Your task to perform on an android device: toggle notification dots Image 0: 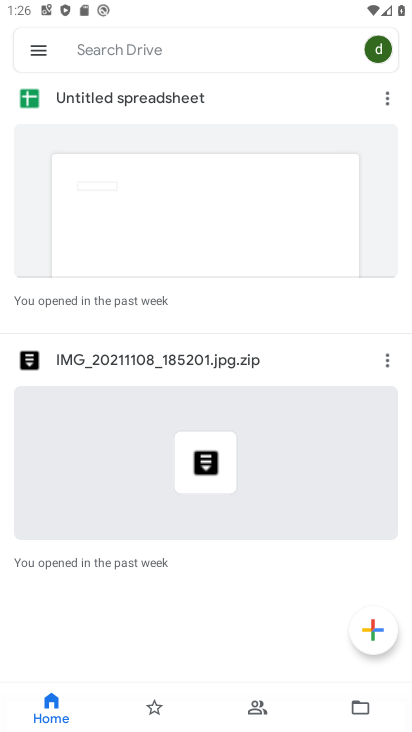
Step 0: press home button
Your task to perform on an android device: toggle notification dots Image 1: 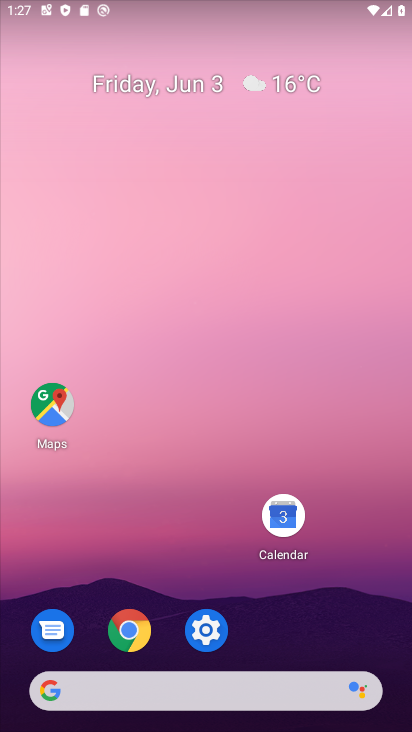
Step 1: drag from (242, 716) to (284, 234)
Your task to perform on an android device: toggle notification dots Image 2: 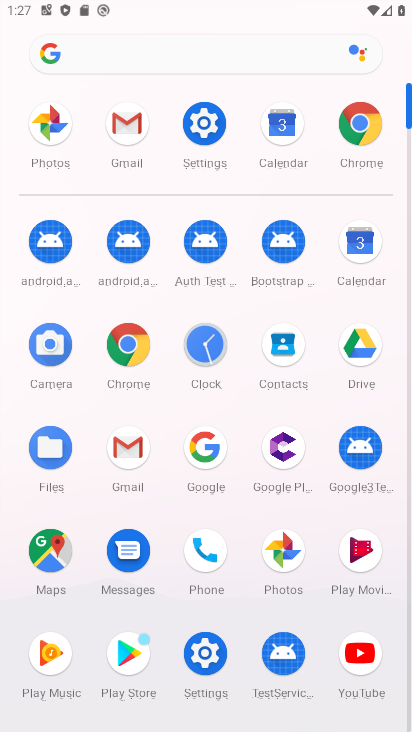
Step 2: click (211, 656)
Your task to perform on an android device: toggle notification dots Image 3: 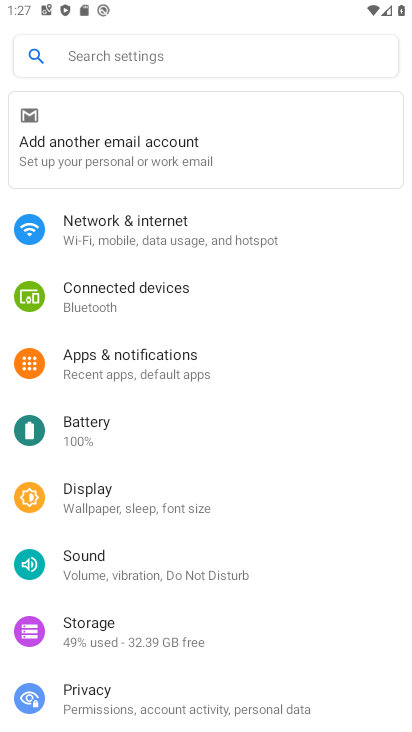
Step 3: click (144, 49)
Your task to perform on an android device: toggle notification dots Image 4: 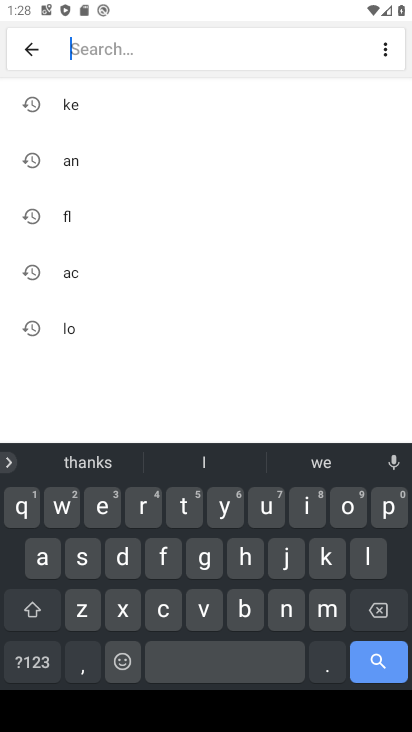
Step 4: click (293, 611)
Your task to perform on an android device: toggle notification dots Image 5: 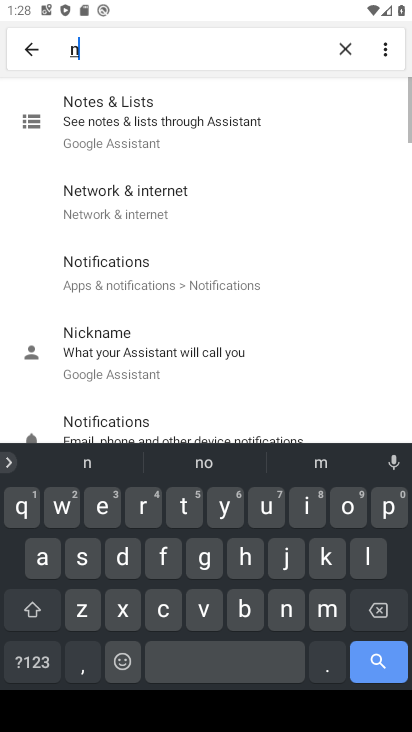
Step 5: click (337, 504)
Your task to perform on an android device: toggle notification dots Image 6: 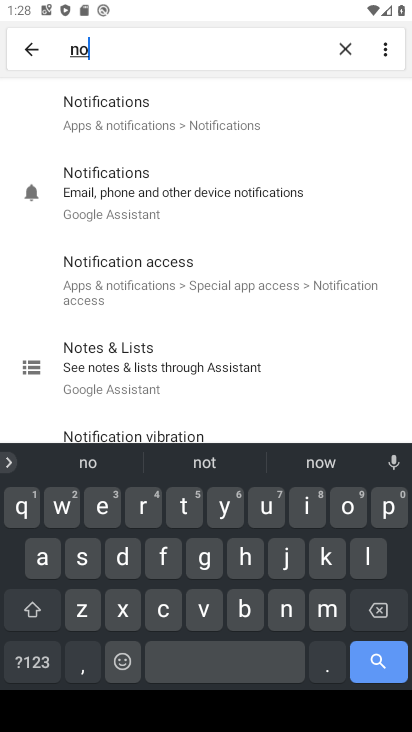
Step 6: click (201, 112)
Your task to perform on an android device: toggle notification dots Image 7: 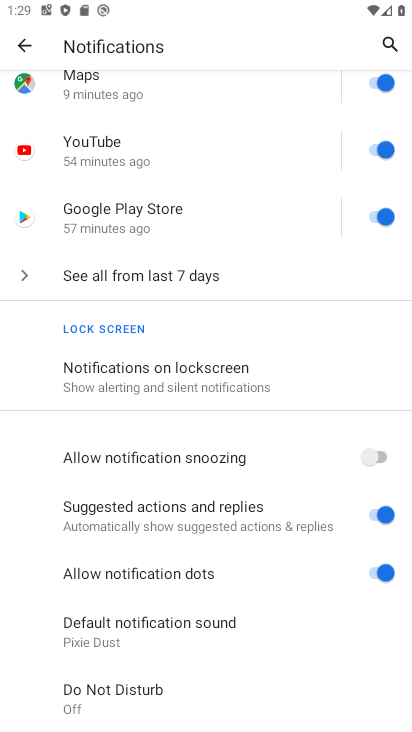
Step 7: task complete